Your task to perform on an android device: Open the calendar app, open the side menu, and click the "Day" option Image 0: 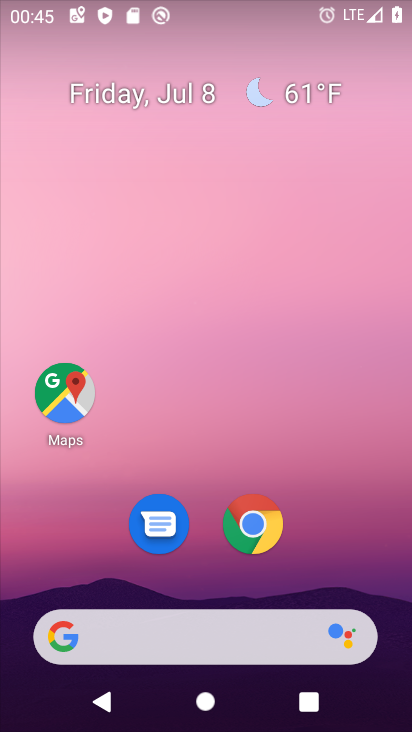
Step 0: drag from (200, 444) to (218, 1)
Your task to perform on an android device: Open the calendar app, open the side menu, and click the "Day" option Image 1: 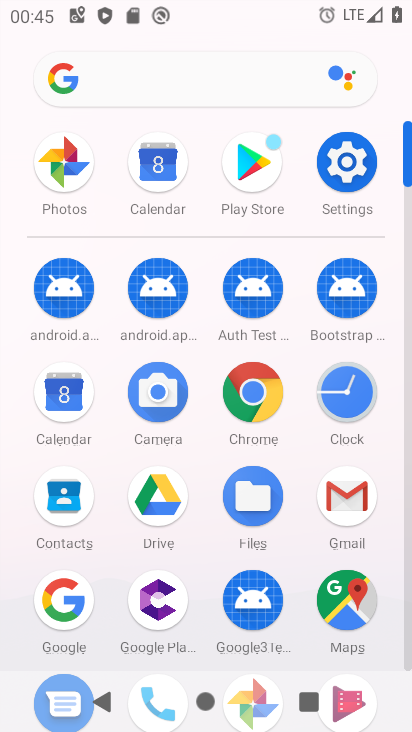
Step 1: click (158, 170)
Your task to perform on an android device: Open the calendar app, open the side menu, and click the "Day" option Image 2: 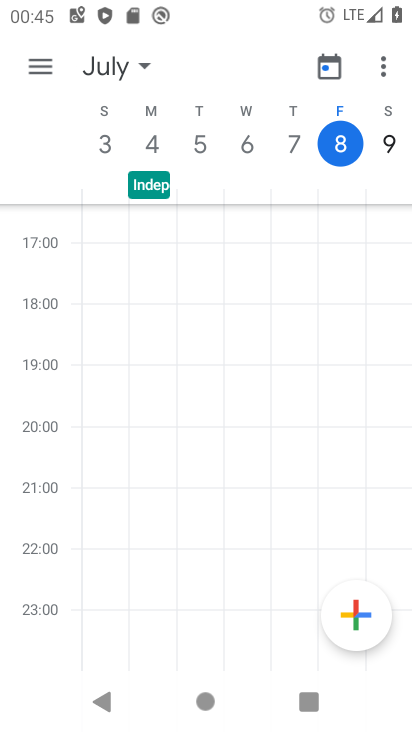
Step 2: click (34, 61)
Your task to perform on an android device: Open the calendar app, open the side menu, and click the "Day" option Image 3: 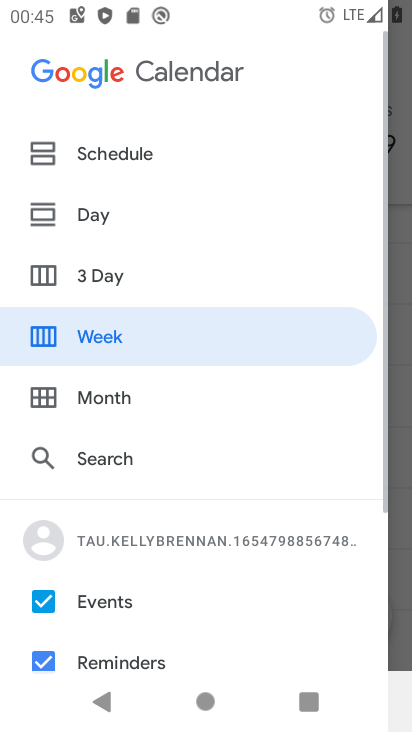
Step 3: click (41, 203)
Your task to perform on an android device: Open the calendar app, open the side menu, and click the "Day" option Image 4: 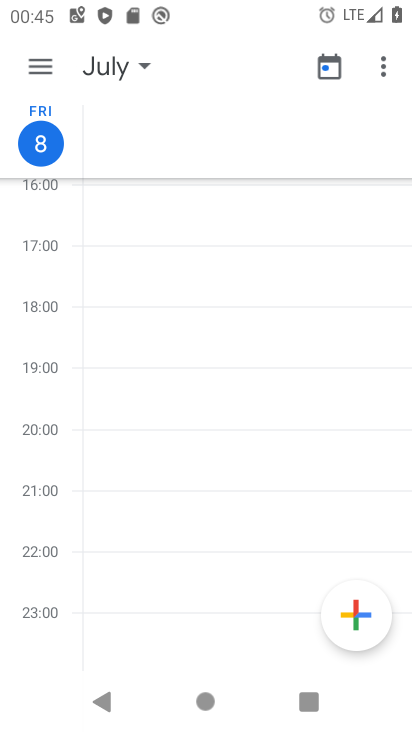
Step 4: task complete